Your task to perform on an android device: move an email to a new category in the gmail app Image 0: 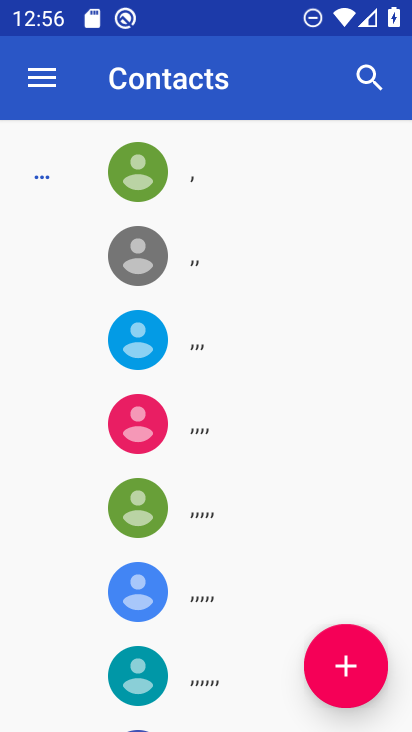
Step 0: press home button
Your task to perform on an android device: move an email to a new category in the gmail app Image 1: 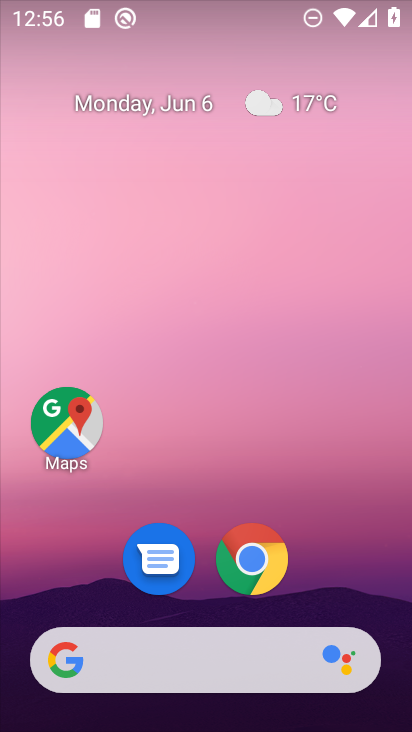
Step 1: drag from (193, 692) to (269, 171)
Your task to perform on an android device: move an email to a new category in the gmail app Image 2: 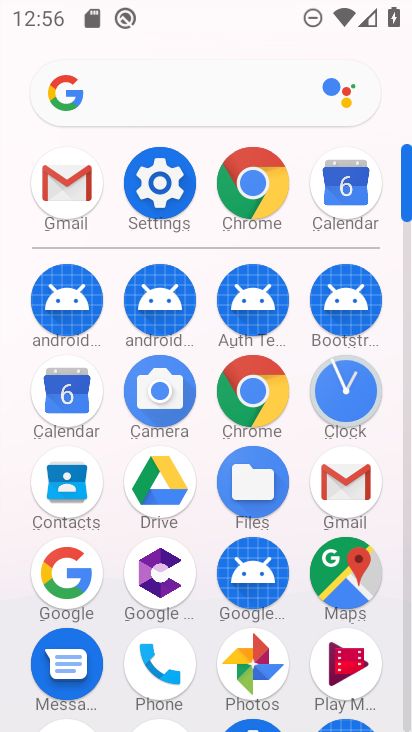
Step 2: click (355, 494)
Your task to perform on an android device: move an email to a new category in the gmail app Image 3: 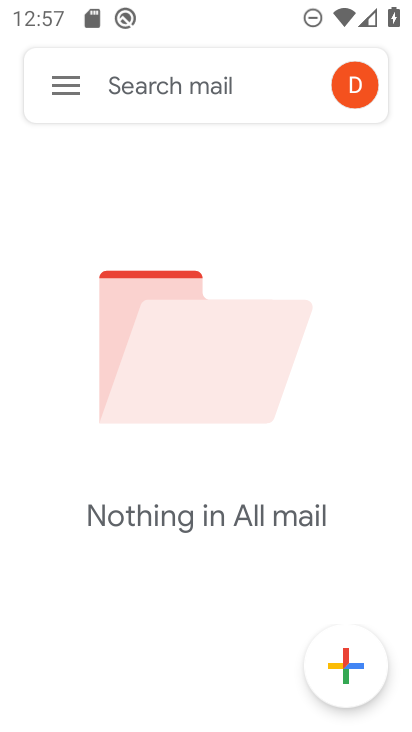
Step 3: click (70, 77)
Your task to perform on an android device: move an email to a new category in the gmail app Image 4: 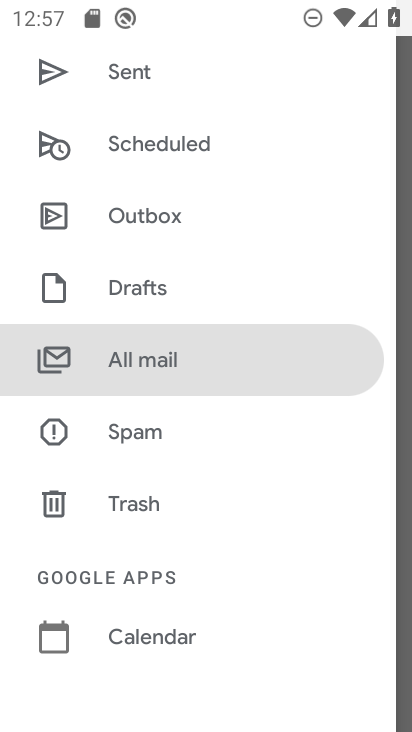
Step 4: click (190, 372)
Your task to perform on an android device: move an email to a new category in the gmail app Image 5: 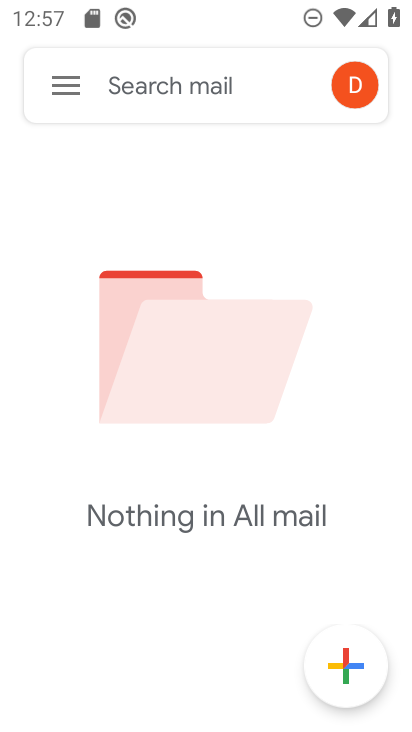
Step 5: task complete